Your task to perform on an android device: create a new album in the google photos Image 0: 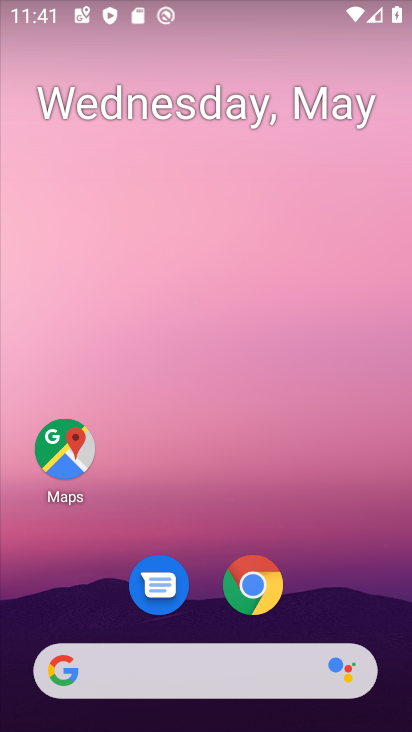
Step 0: drag from (291, 386) to (314, 45)
Your task to perform on an android device: create a new album in the google photos Image 1: 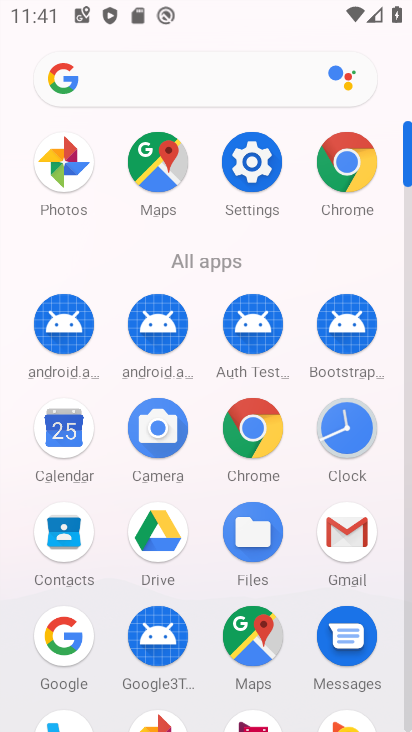
Step 1: click (70, 171)
Your task to perform on an android device: create a new album in the google photos Image 2: 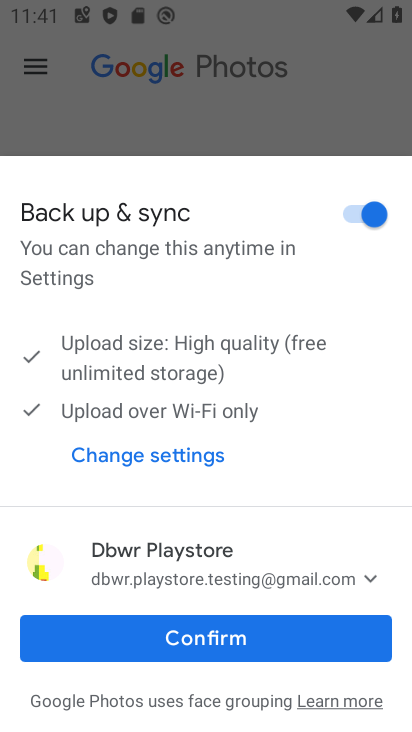
Step 2: click (231, 636)
Your task to perform on an android device: create a new album in the google photos Image 3: 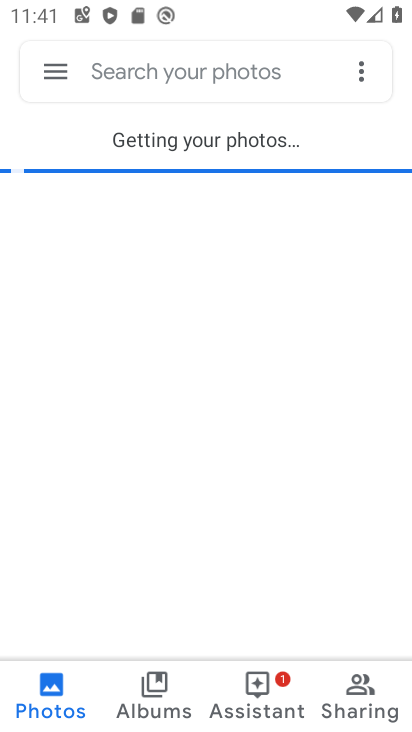
Step 3: click (166, 677)
Your task to perform on an android device: create a new album in the google photos Image 4: 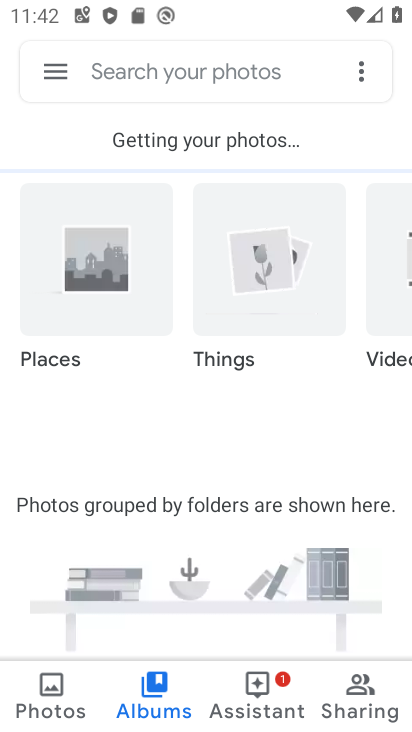
Step 4: click (363, 75)
Your task to perform on an android device: create a new album in the google photos Image 5: 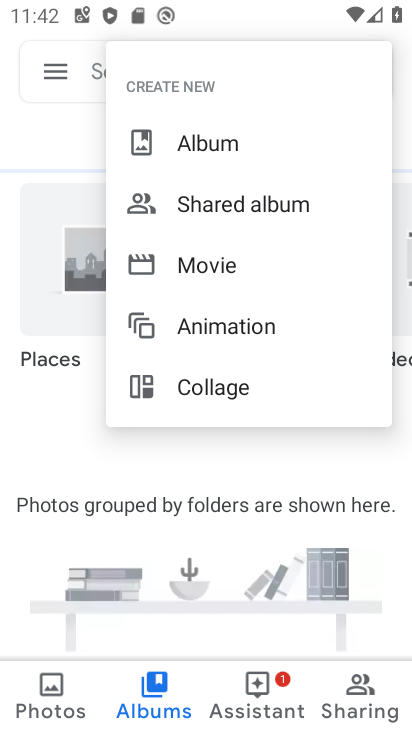
Step 5: click (288, 139)
Your task to perform on an android device: create a new album in the google photos Image 6: 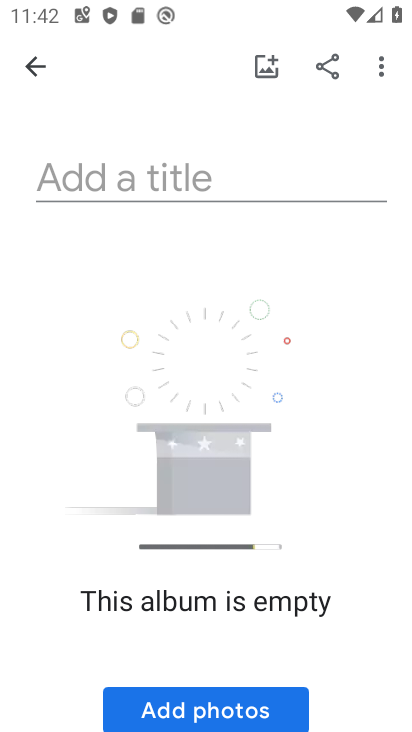
Step 6: click (278, 175)
Your task to perform on an android device: create a new album in the google photos Image 7: 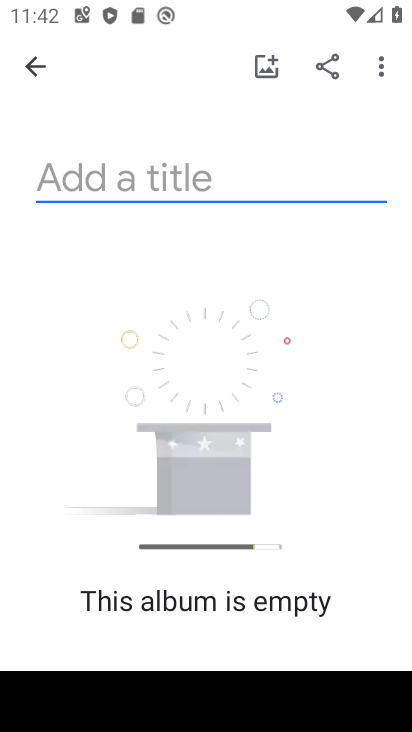
Step 7: type "Ancient Temples in Bharatvarsh"
Your task to perform on an android device: create a new album in the google photos Image 8: 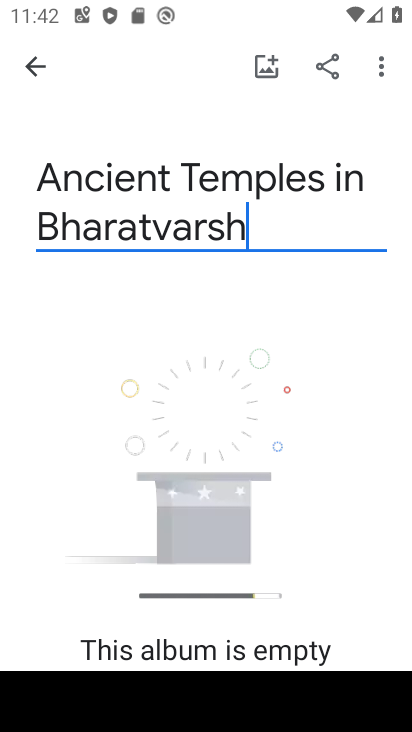
Step 8: drag from (231, 520) to (241, 278)
Your task to perform on an android device: create a new album in the google photos Image 9: 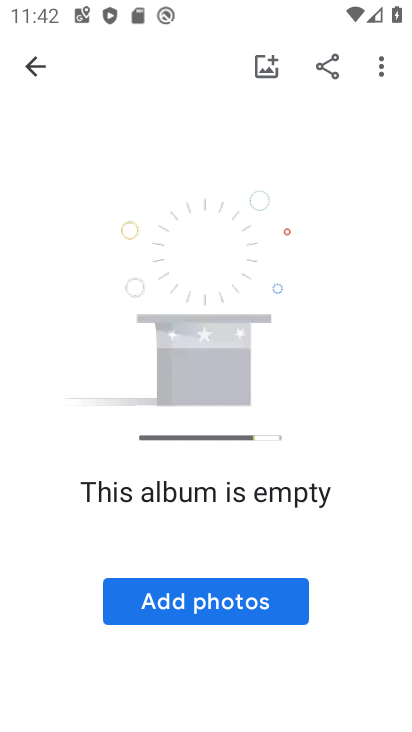
Step 9: click (200, 603)
Your task to perform on an android device: create a new album in the google photos Image 10: 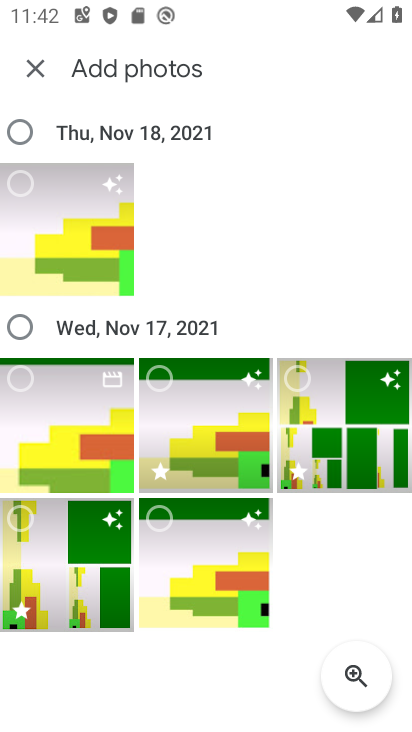
Step 10: click (155, 515)
Your task to perform on an android device: create a new album in the google photos Image 11: 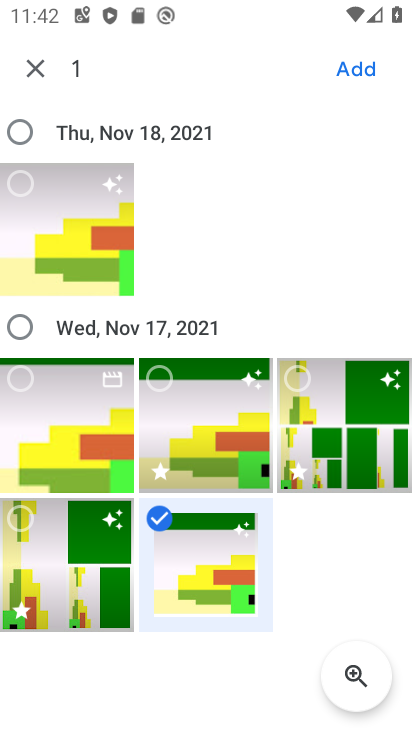
Step 11: click (21, 515)
Your task to perform on an android device: create a new album in the google photos Image 12: 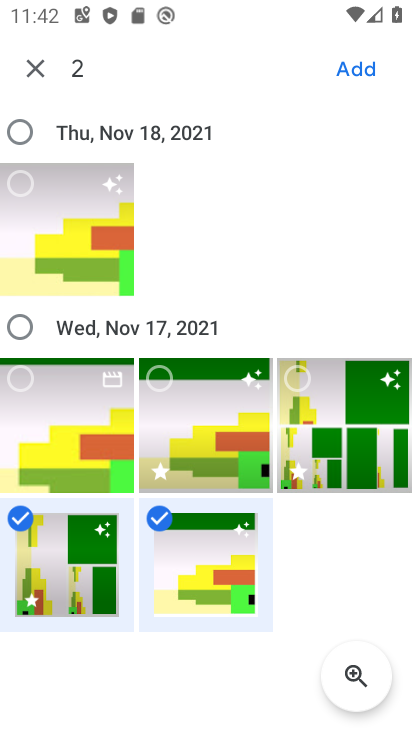
Step 12: click (357, 69)
Your task to perform on an android device: create a new album in the google photos Image 13: 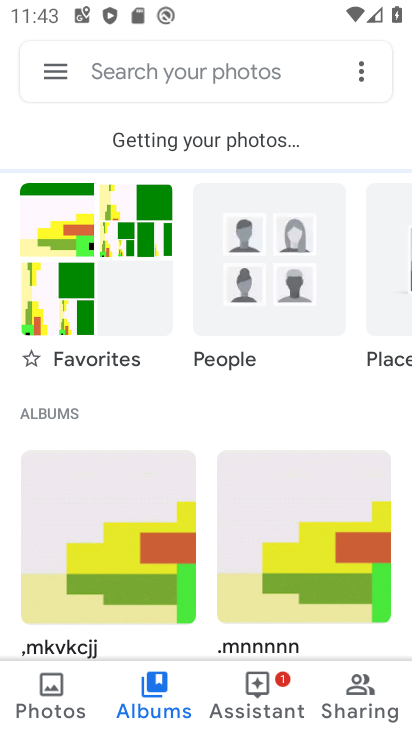
Step 13: task complete